Your task to perform on an android device: add a contact in the contacts app Image 0: 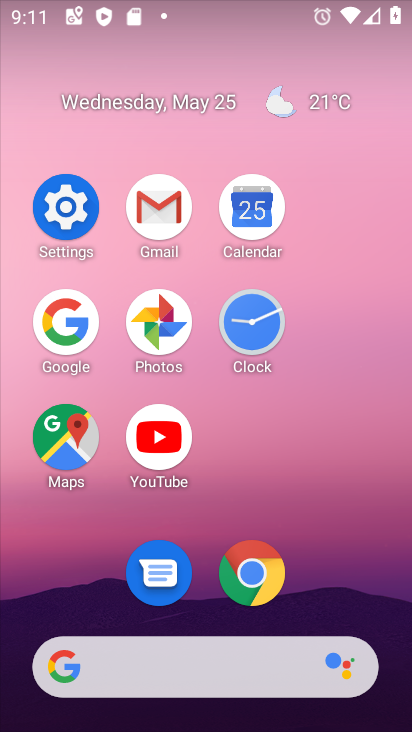
Step 0: drag from (338, 594) to (306, 196)
Your task to perform on an android device: add a contact in the contacts app Image 1: 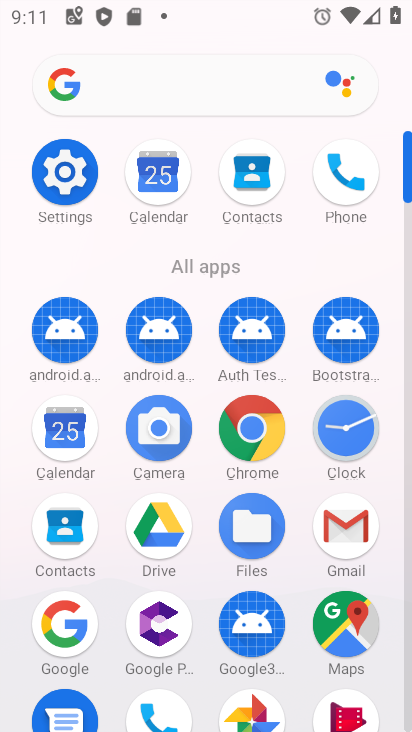
Step 1: click (66, 532)
Your task to perform on an android device: add a contact in the contacts app Image 2: 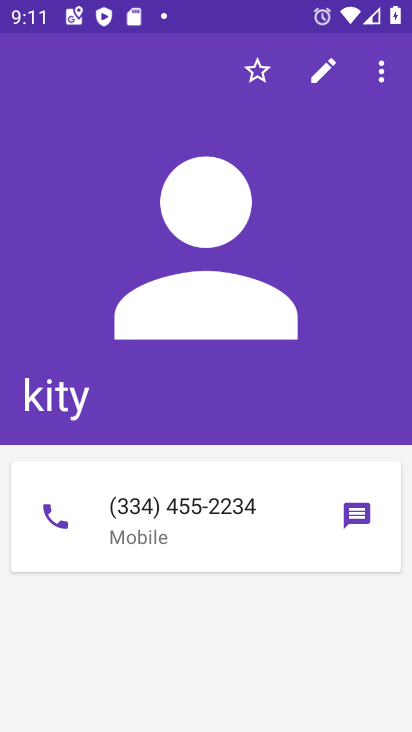
Step 2: press back button
Your task to perform on an android device: add a contact in the contacts app Image 3: 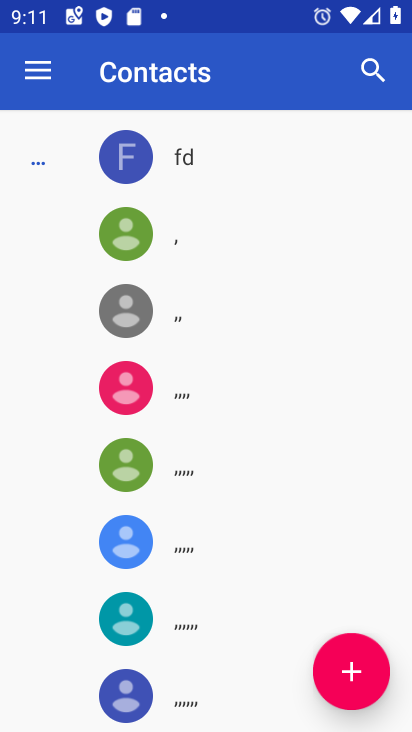
Step 3: click (339, 653)
Your task to perform on an android device: add a contact in the contacts app Image 4: 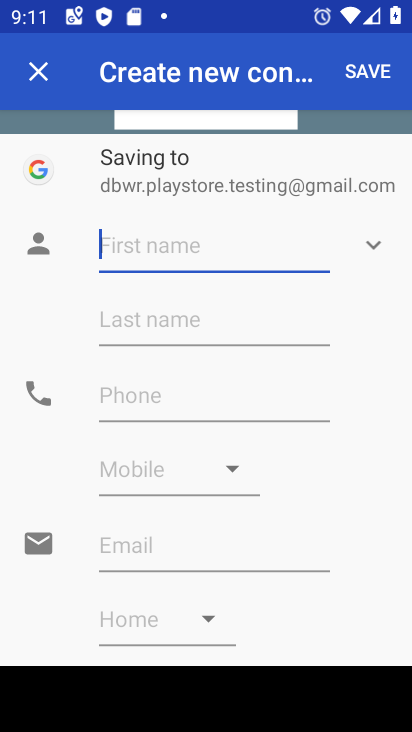
Step 4: type "water"
Your task to perform on an android device: add a contact in the contacts app Image 5: 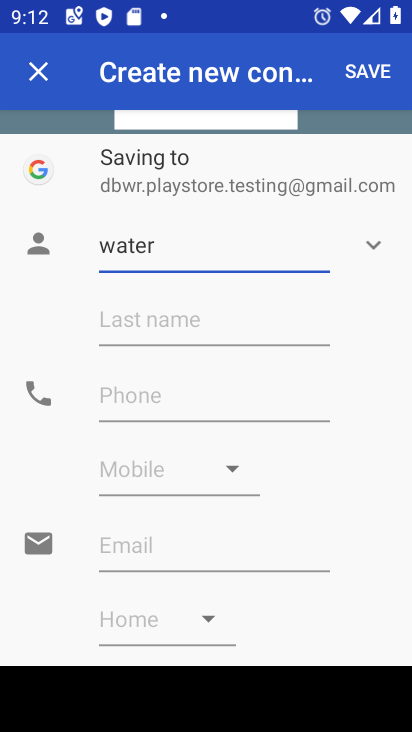
Step 5: click (176, 406)
Your task to perform on an android device: add a contact in the contacts app Image 6: 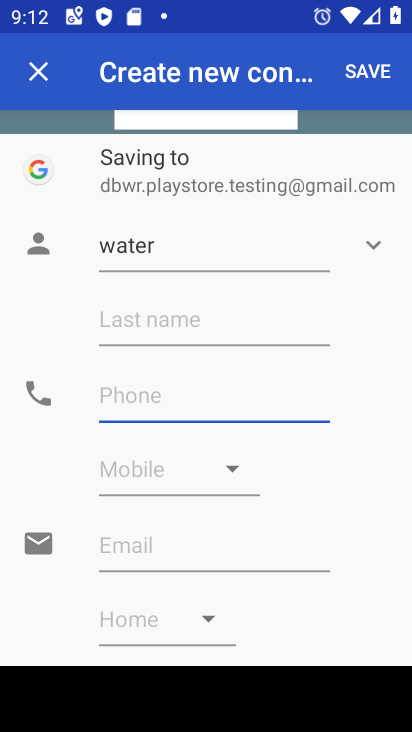
Step 6: type "3322332232"
Your task to perform on an android device: add a contact in the contacts app Image 7: 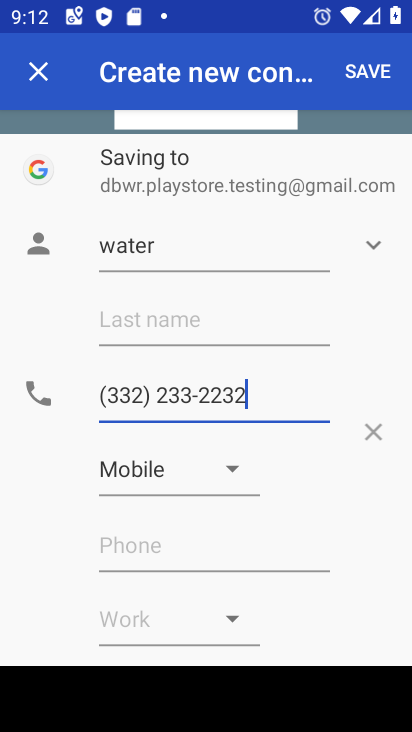
Step 7: click (379, 82)
Your task to perform on an android device: add a contact in the contacts app Image 8: 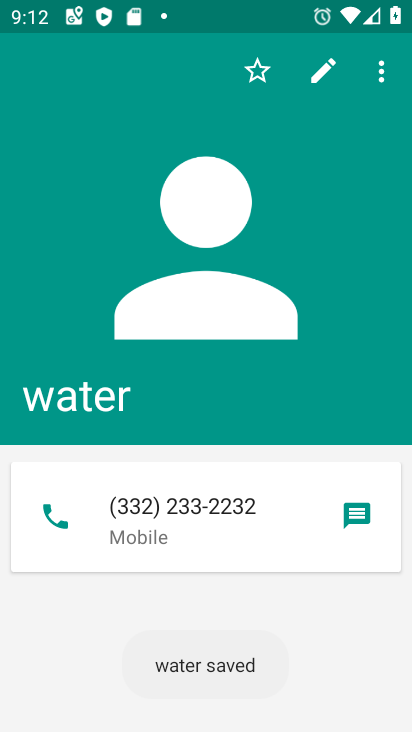
Step 8: task complete